Your task to perform on an android device: open wifi settings Image 0: 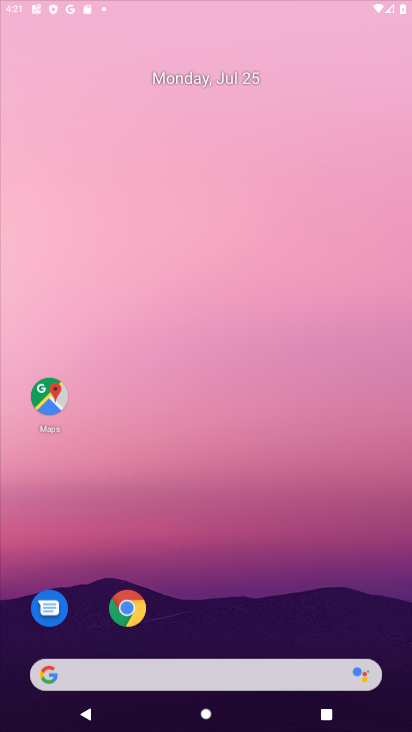
Step 0: press home button
Your task to perform on an android device: open wifi settings Image 1: 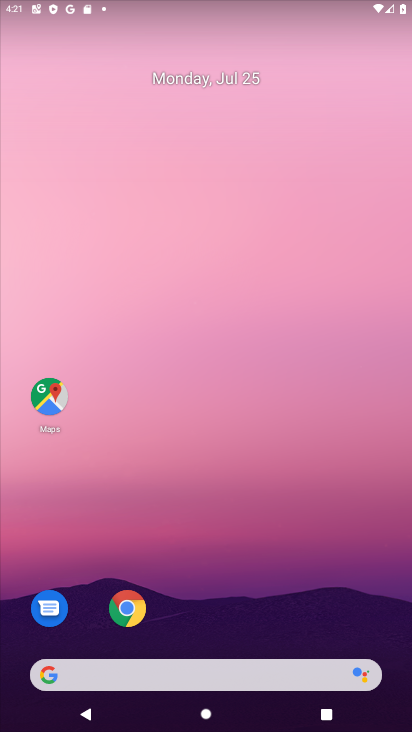
Step 1: drag from (223, 629) to (262, 0)
Your task to perform on an android device: open wifi settings Image 2: 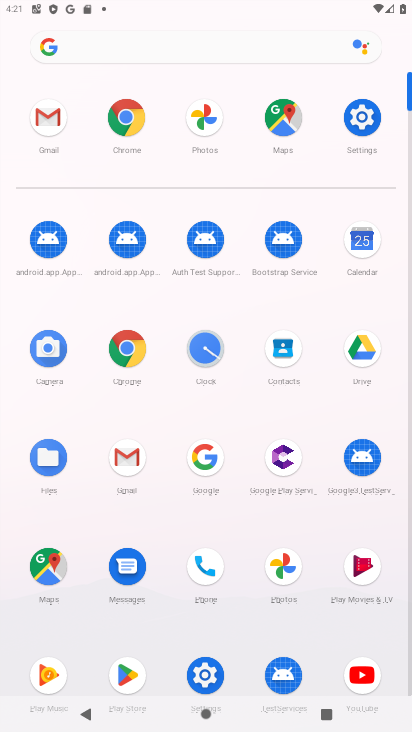
Step 2: click (356, 111)
Your task to perform on an android device: open wifi settings Image 3: 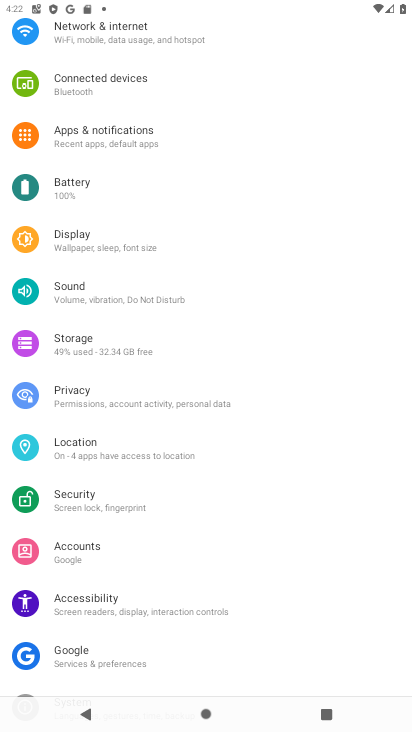
Step 3: click (148, 32)
Your task to perform on an android device: open wifi settings Image 4: 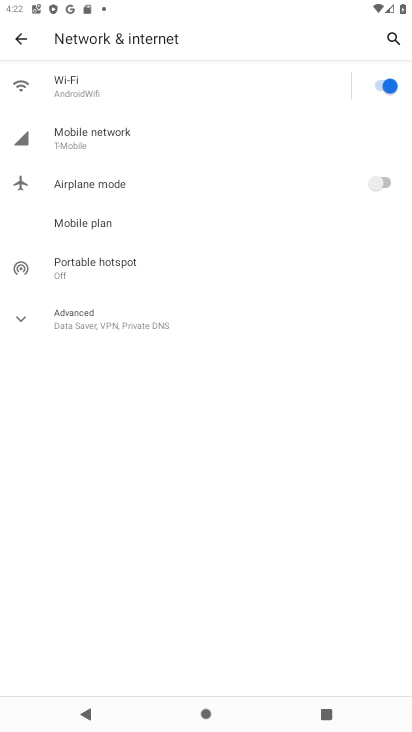
Step 4: click (148, 82)
Your task to perform on an android device: open wifi settings Image 5: 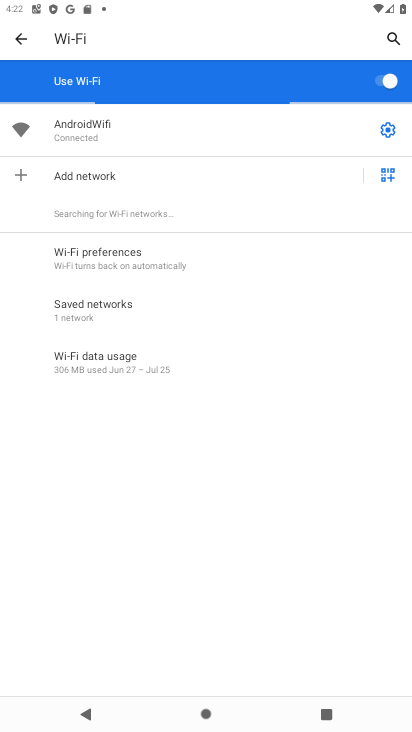
Step 5: task complete